Your task to perform on an android device: change your default location settings in chrome Image 0: 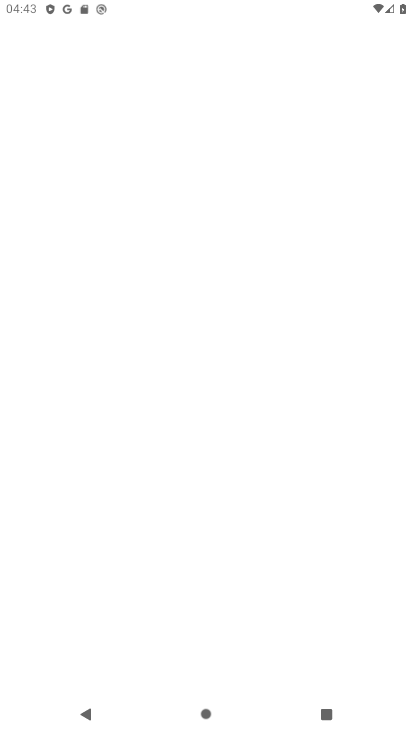
Step 0: click (129, 605)
Your task to perform on an android device: change your default location settings in chrome Image 1: 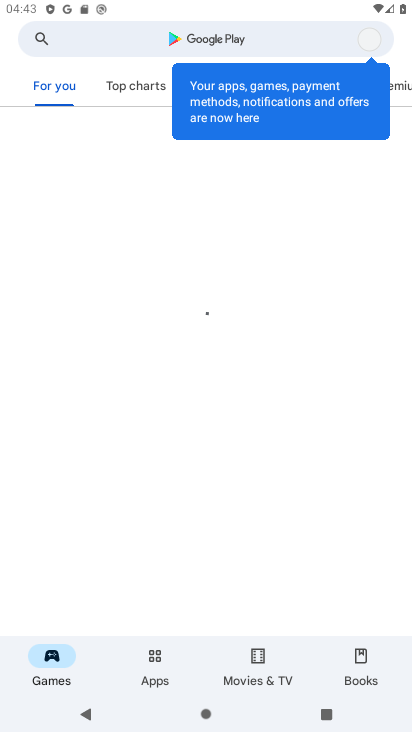
Step 1: press home button
Your task to perform on an android device: change your default location settings in chrome Image 2: 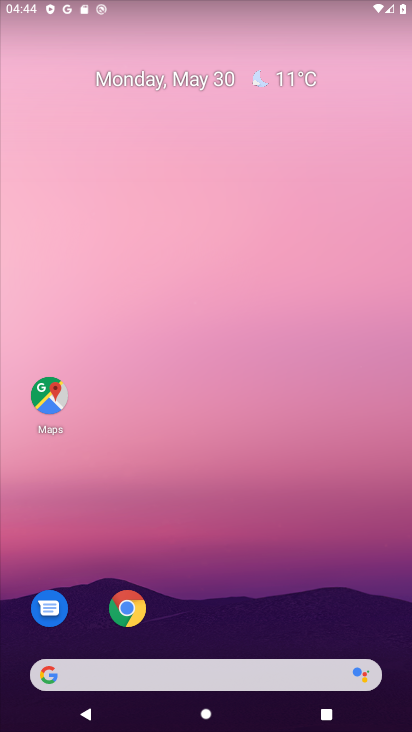
Step 2: click (134, 611)
Your task to perform on an android device: change your default location settings in chrome Image 3: 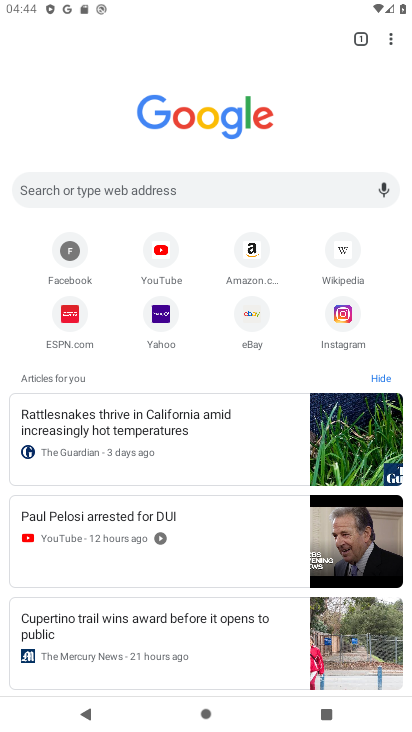
Step 3: click (391, 34)
Your task to perform on an android device: change your default location settings in chrome Image 4: 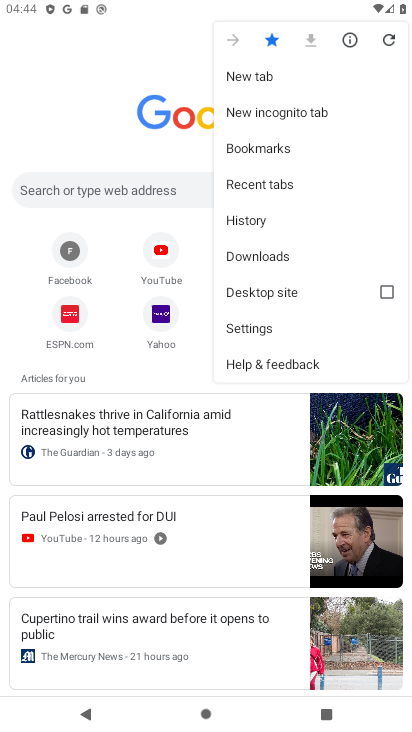
Step 4: click (274, 328)
Your task to perform on an android device: change your default location settings in chrome Image 5: 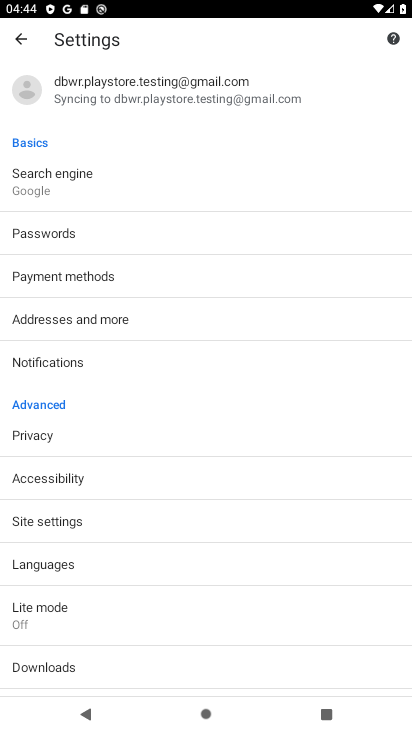
Step 5: click (62, 183)
Your task to perform on an android device: change your default location settings in chrome Image 6: 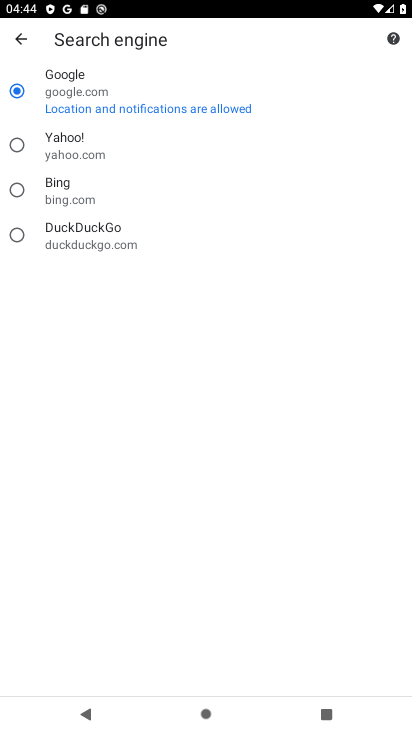
Step 6: click (75, 160)
Your task to perform on an android device: change your default location settings in chrome Image 7: 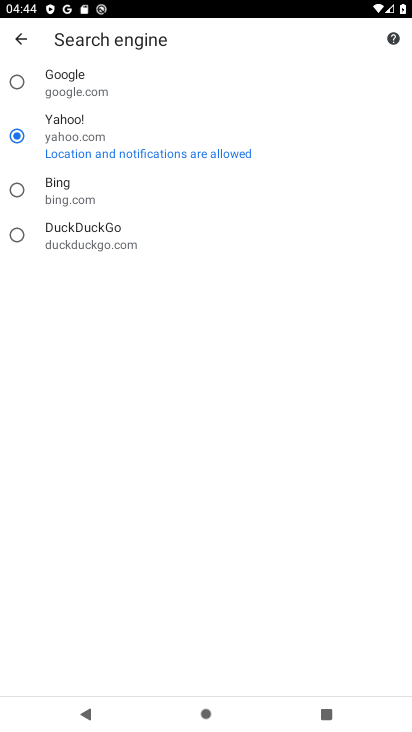
Step 7: task complete